Your task to perform on an android device: toggle translation in the chrome app Image 0: 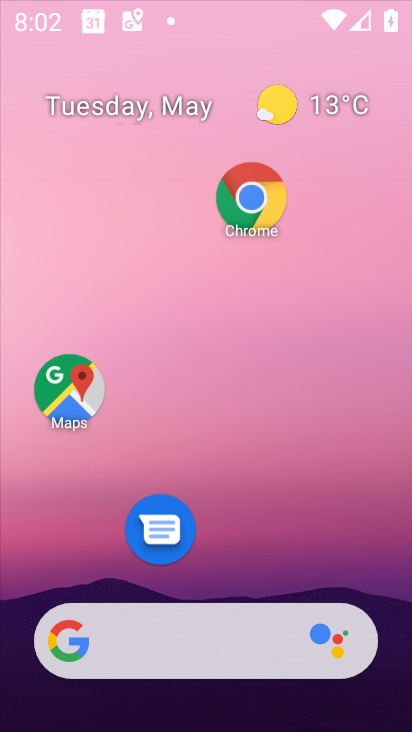
Step 0: click (279, 658)
Your task to perform on an android device: toggle translation in the chrome app Image 1: 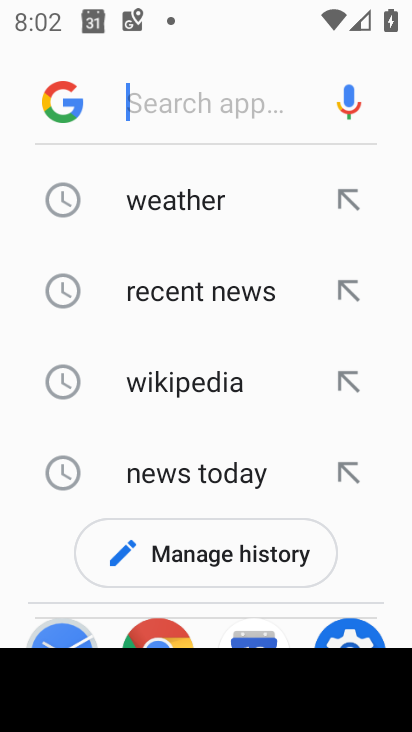
Step 1: press home button
Your task to perform on an android device: toggle translation in the chrome app Image 2: 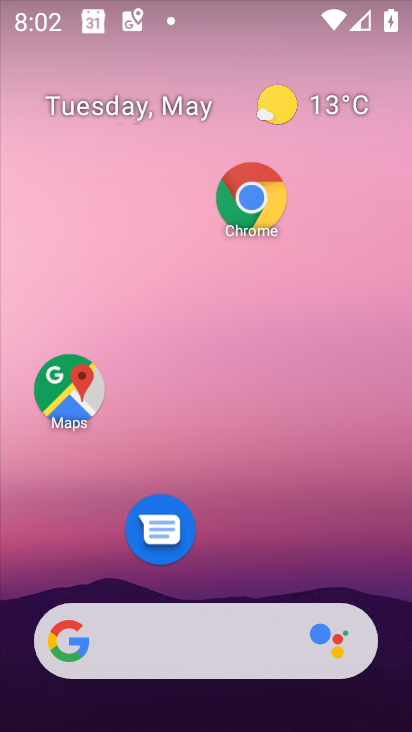
Step 2: click (256, 223)
Your task to perform on an android device: toggle translation in the chrome app Image 3: 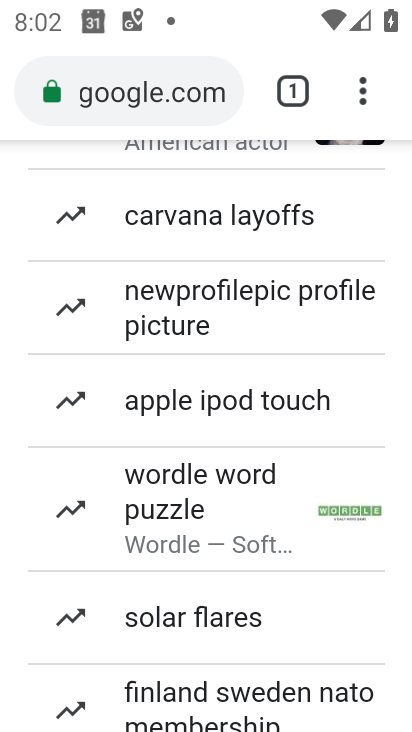
Step 3: click (351, 102)
Your task to perform on an android device: toggle translation in the chrome app Image 4: 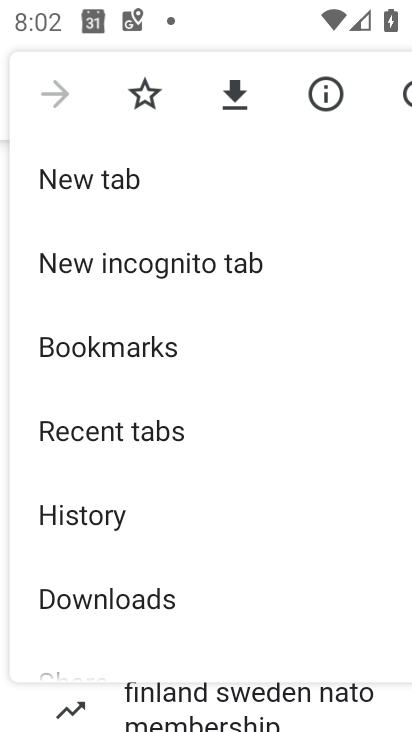
Step 4: drag from (193, 608) to (195, 287)
Your task to perform on an android device: toggle translation in the chrome app Image 5: 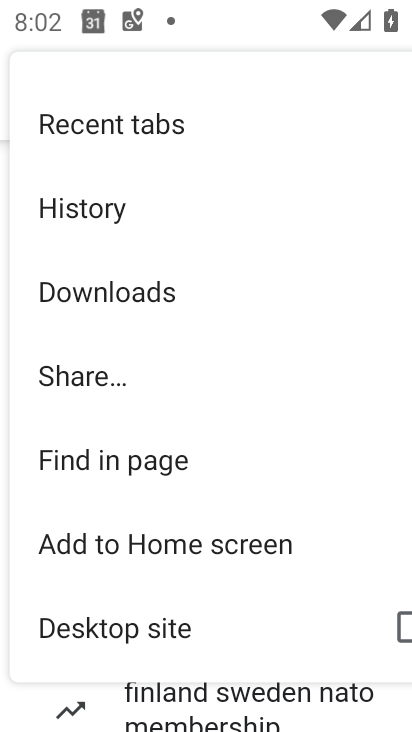
Step 5: drag from (155, 628) to (191, 254)
Your task to perform on an android device: toggle translation in the chrome app Image 6: 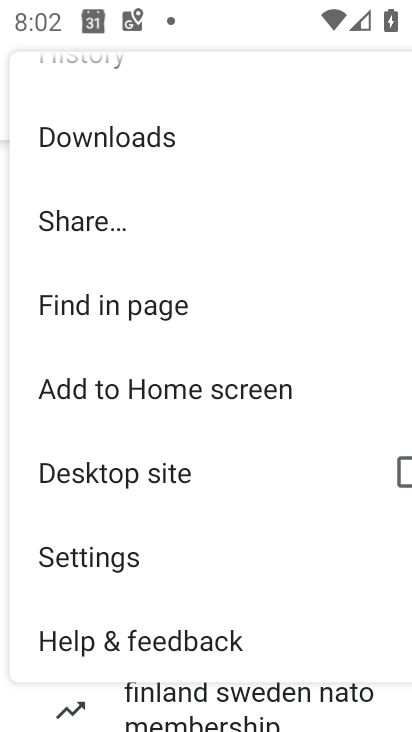
Step 6: click (124, 549)
Your task to perform on an android device: toggle translation in the chrome app Image 7: 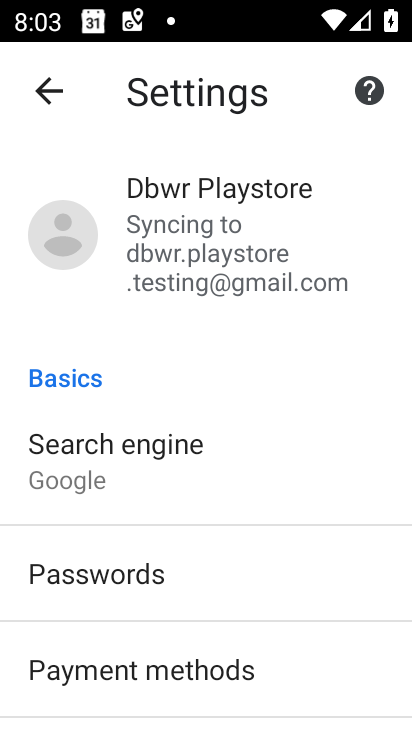
Step 7: drag from (264, 569) to (264, 223)
Your task to perform on an android device: toggle translation in the chrome app Image 8: 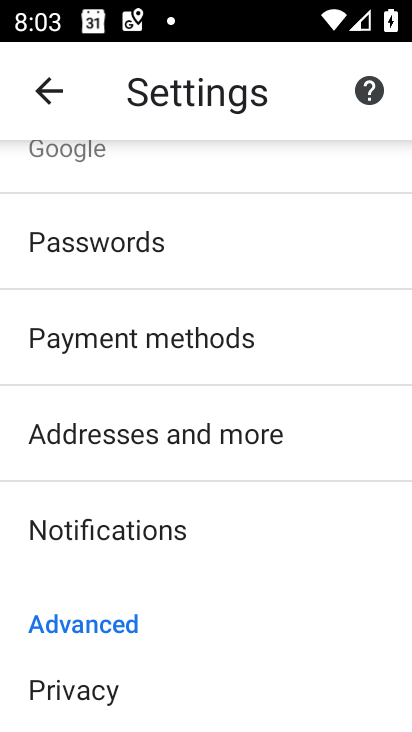
Step 8: drag from (203, 543) to (214, 172)
Your task to perform on an android device: toggle translation in the chrome app Image 9: 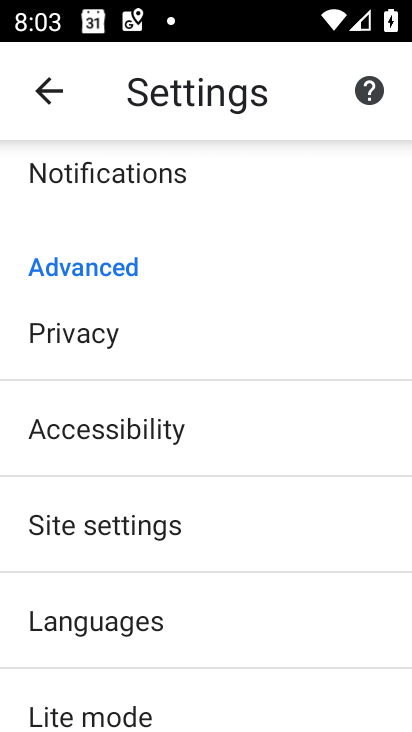
Step 9: click (163, 616)
Your task to perform on an android device: toggle translation in the chrome app Image 10: 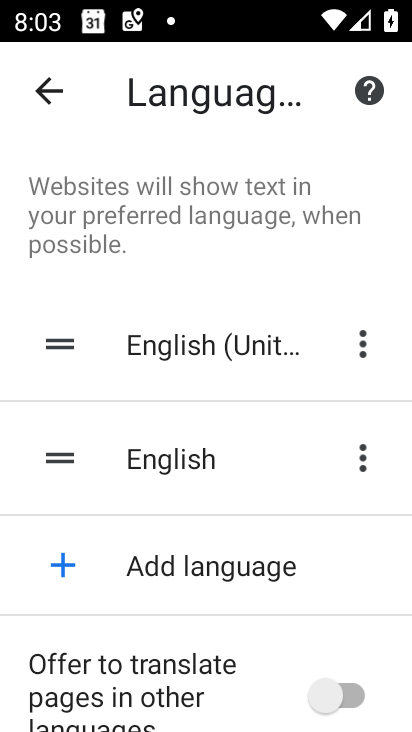
Step 10: click (302, 682)
Your task to perform on an android device: toggle translation in the chrome app Image 11: 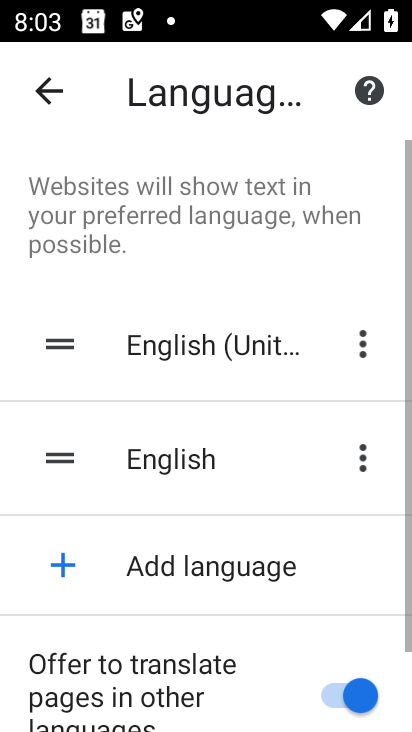
Step 11: task complete